Your task to perform on an android device: install app "Google Maps" Image 0: 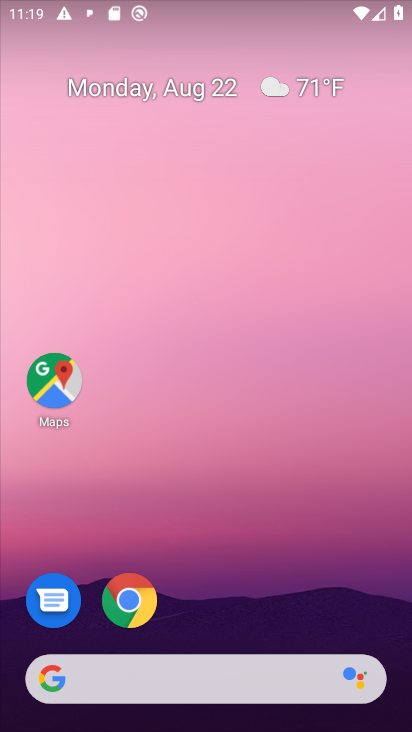
Step 0: drag from (218, 579) to (234, 222)
Your task to perform on an android device: install app "Google Maps" Image 1: 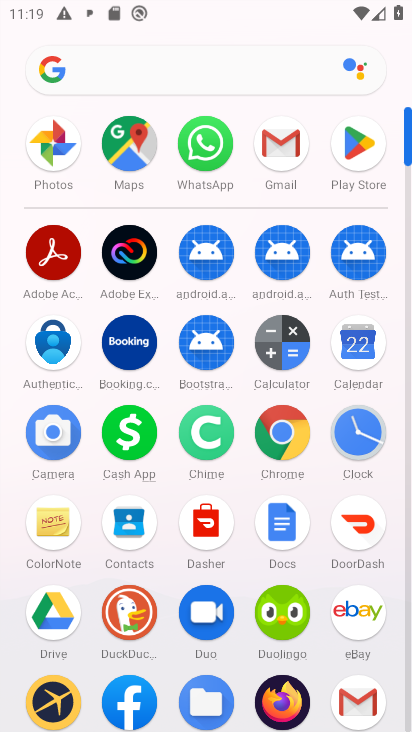
Step 1: click (344, 153)
Your task to perform on an android device: install app "Google Maps" Image 2: 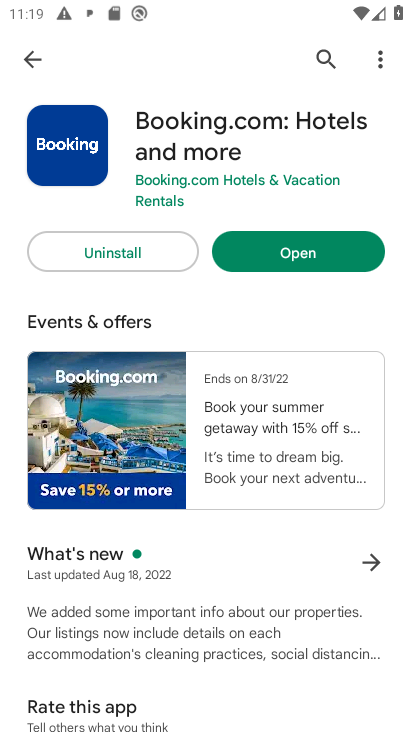
Step 2: click (325, 62)
Your task to perform on an android device: install app "Google Maps" Image 3: 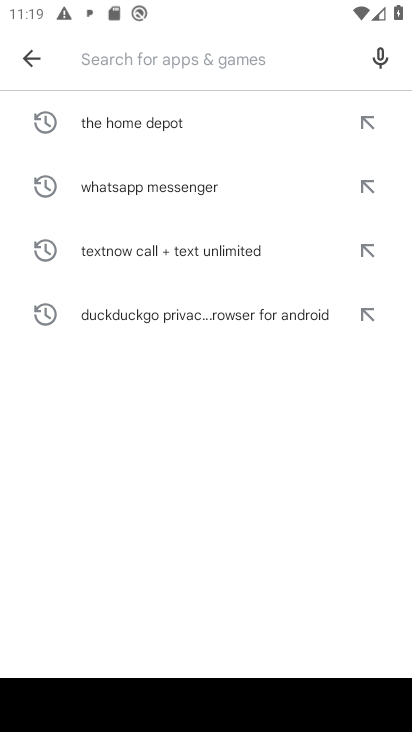
Step 3: type "Google Maps"
Your task to perform on an android device: install app "Google Maps" Image 4: 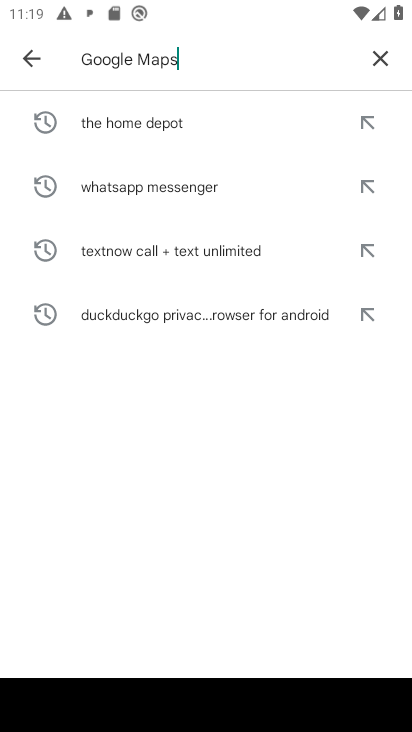
Step 4: type ""
Your task to perform on an android device: install app "Google Maps" Image 5: 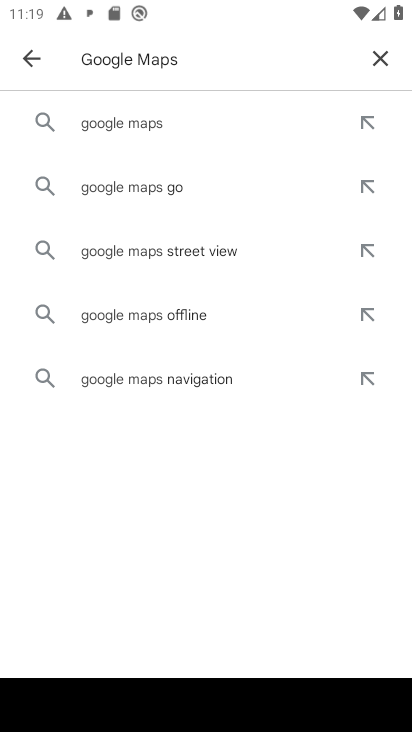
Step 5: click (129, 133)
Your task to perform on an android device: install app "Google Maps" Image 6: 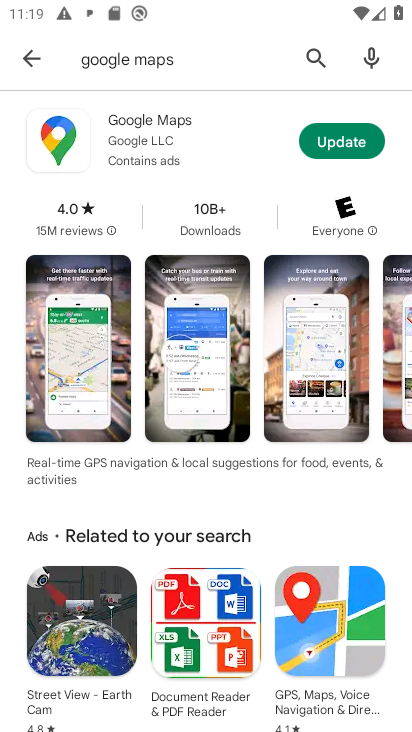
Step 6: click (258, 139)
Your task to perform on an android device: install app "Google Maps" Image 7: 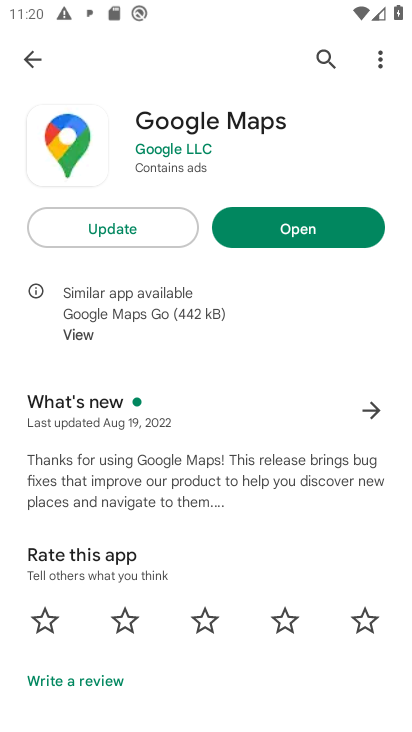
Step 7: task complete